Your task to perform on an android device: toggle show notifications on the lock screen Image 0: 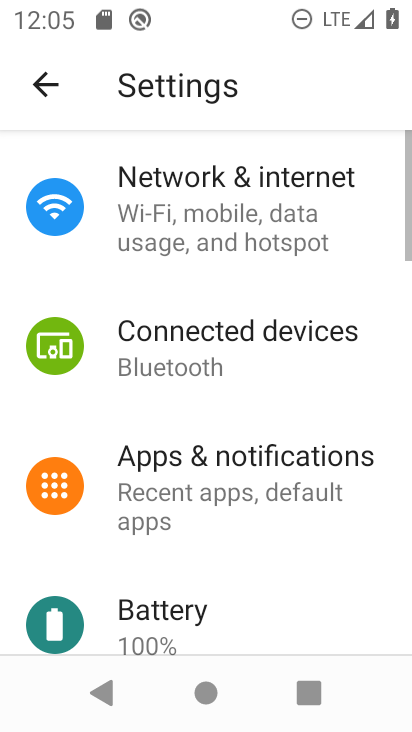
Step 0: press home button
Your task to perform on an android device: toggle show notifications on the lock screen Image 1: 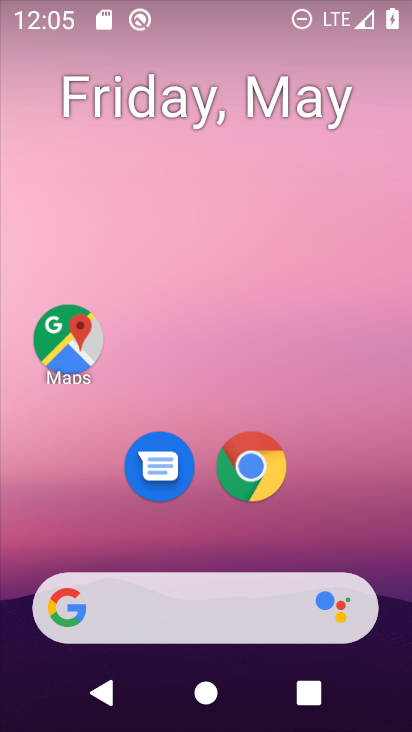
Step 1: drag from (313, 660) to (311, 93)
Your task to perform on an android device: toggle show notifications on the lock screen Image 2: 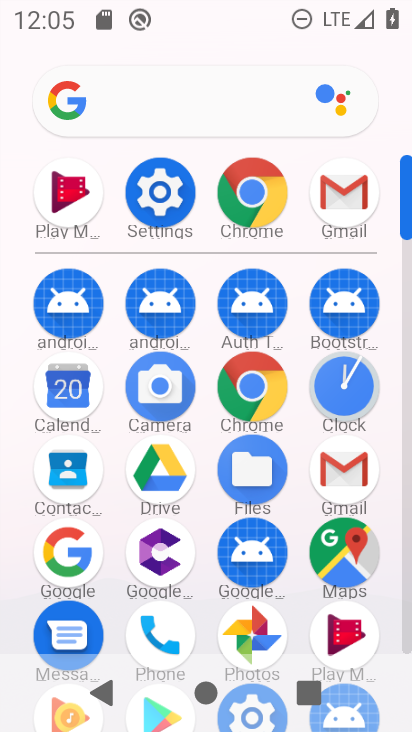
Step 2: click (185, 187)
Your task to perform on an android device: toggle show notifications on the lock screen Image 3: 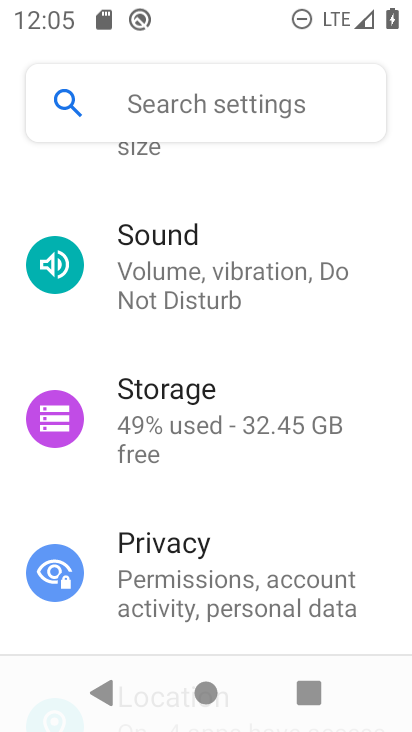
Step 3: drag from (283, 233) to (298, 713)
Your task to perform on an android device: toggle show notifications on the lock screen Image 4: 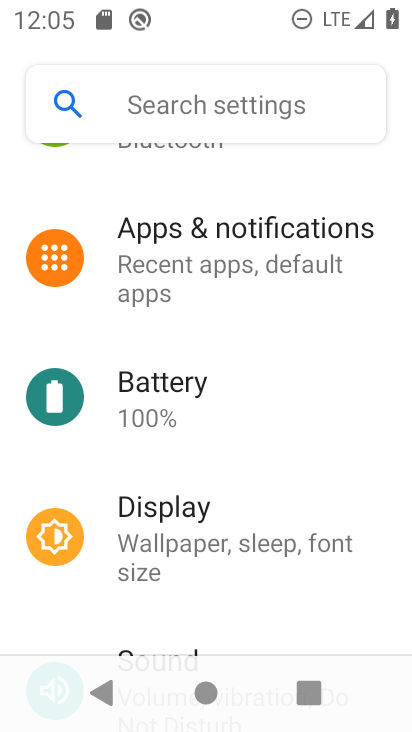
Step 4: click (288, 274)
Your task to perform on an android device: toggle show notifications on the lock screen Image 5: 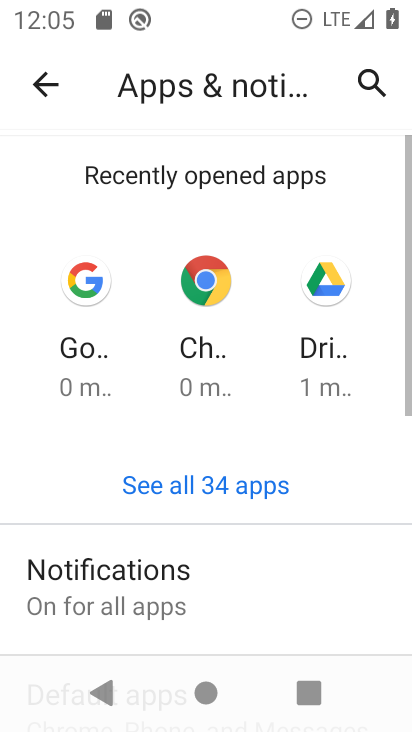
Step 5: drag from (304, 595) to (358, 141)
Your task to perform on an android device: toggle show notifications on the lock screen Image 6: 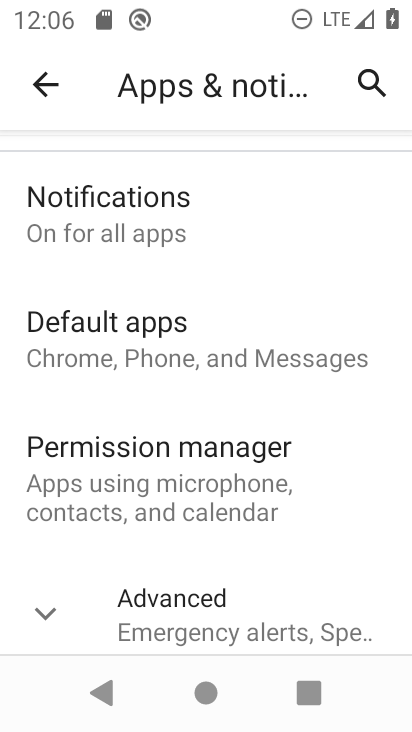
Step 6: click (212, 222)
Your task to perform on an android device: toggle show notifications on the lock screen Image 7: 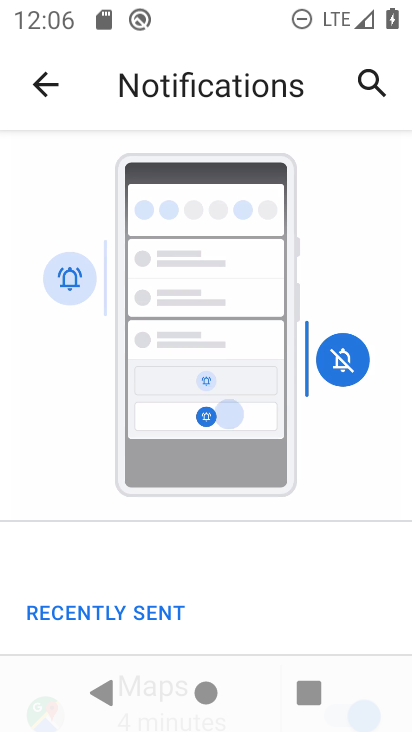
Step 7: drag from (193, 619) to (294, 247)
Your task to perform on an android device: toggle show notifications on the lock screen Image 8: 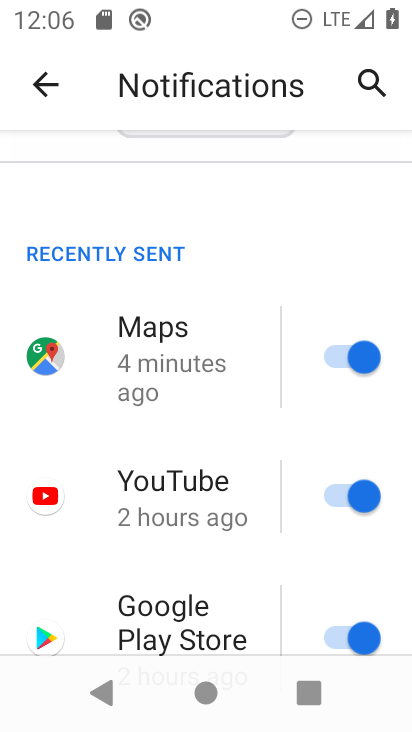
Step 8: drag from (265, 633) to (320, 240)
Your task to perform on an android device: toggle show notifications on the lock screen Image 9: 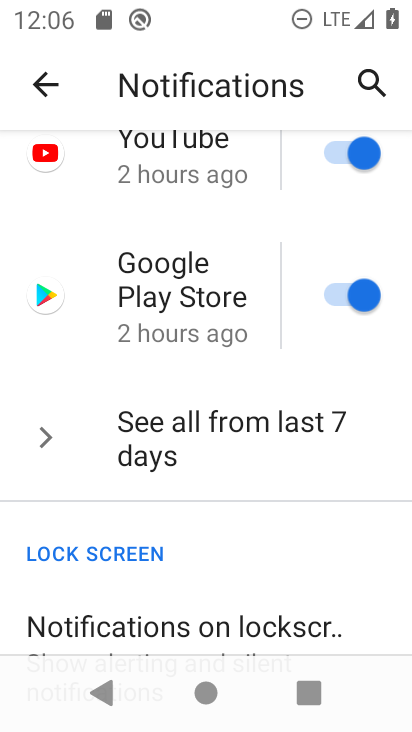
Step 9: drag from (284, 558) to (305, 288)
Your task to perform on an android device: toggle show notifications on the lock screen Image 10: 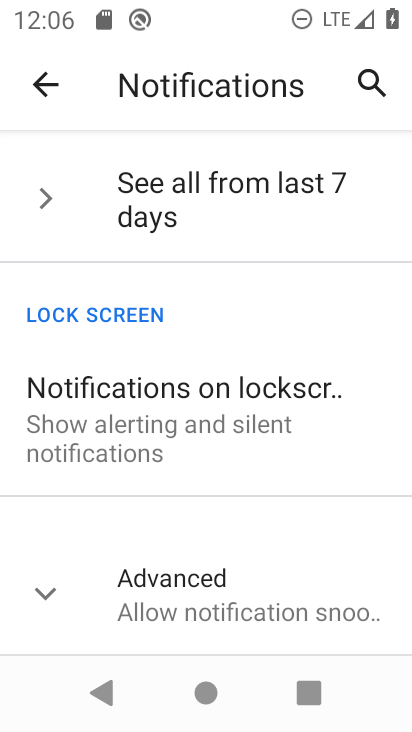
Step 10: click (267, 405)
Your task to perform on an android device: toggle show notifications on the lock screen Image 11: 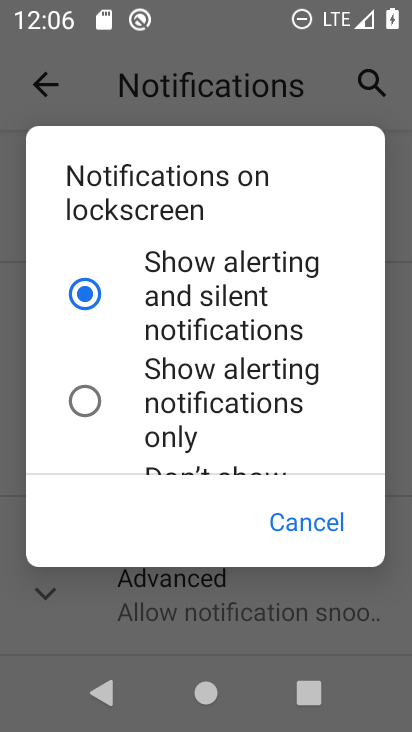
Step 11: task complete